Your task to perform on an android device: Add "razer deathadder" to the cart on amazon Image 0: 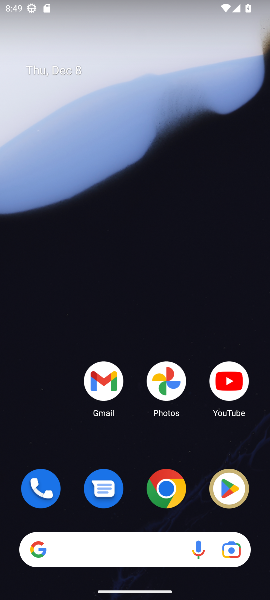
Step 0: drag from (92, 538) to (128, 197)
Your task to perform on an android device: Add "razer deathadder" to the cart on amazon Image 1: 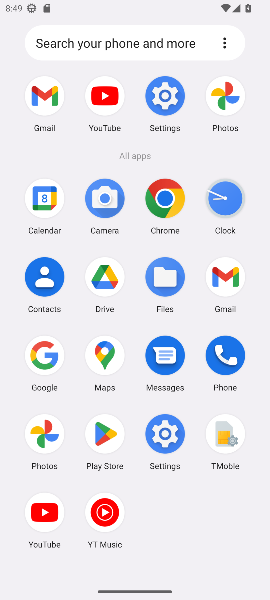
Step 1: click (44, 363)
Your task to perform on an android device: Add "razer deathadder" to the cart on amazon Image 2: 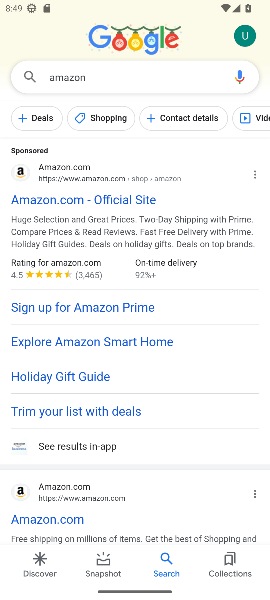
Step 2: click (76, 199)
Your task to perform on an android device: Add "razer deathadder" to the cart on amazon Image 3: 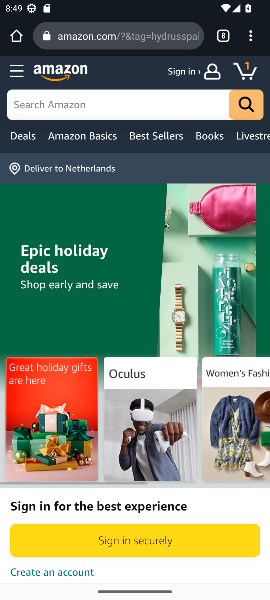
Step 3: click (39, 104)
Your task to perform on an android device: Add "razer deathadder" to the cart on amazon Image 4: 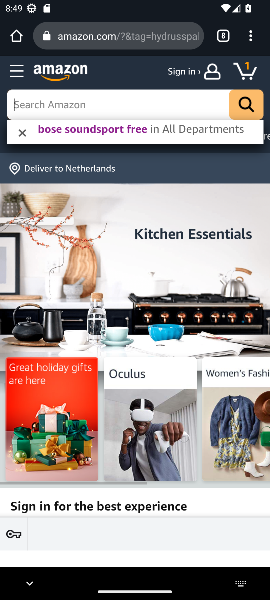
Step 4: type "razer deathadder"
Your task to perform on an android device: Add "razer deathadder" to the cart on amazon Image 5: 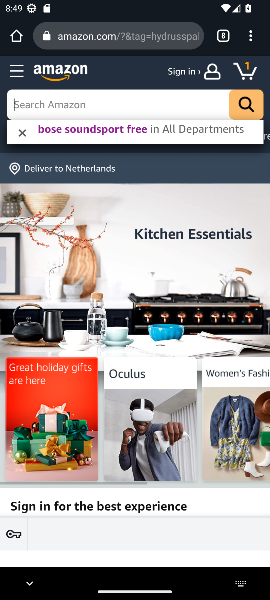
Step 5: click (243, 107)
Your task to perform on an android device: Add "razer deathadder" to the cart on amazon Image 6: 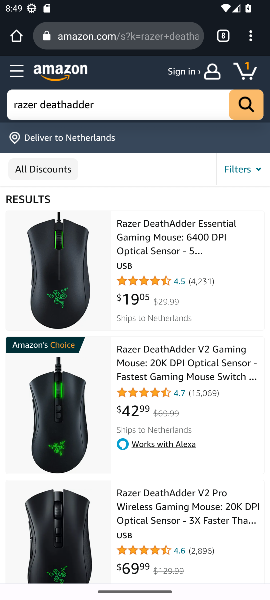
Step 6: click (125, 248)
Your task to perform on an android device: Add "razer deathadder" to the cart on amazon Image 7: 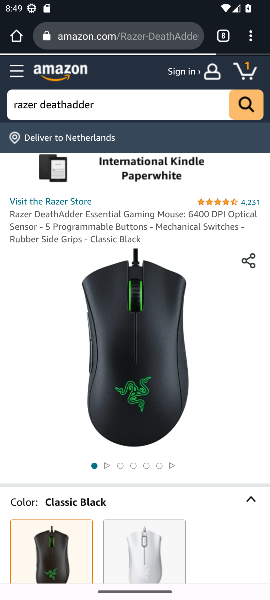
Step 7: drag from (211, 475) to (211, 241)
Your task to perform on an android device: Add "razer deathadder" to the cart on amazon Image 8: 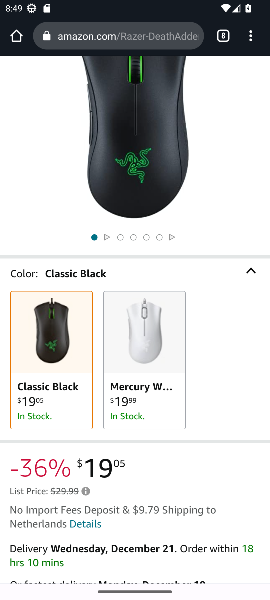
Step 8: drag from (235, 568) to (235, 323)
Your task to perform on an android device: Add "razer deathadder" to the cart on amazon Image 9: 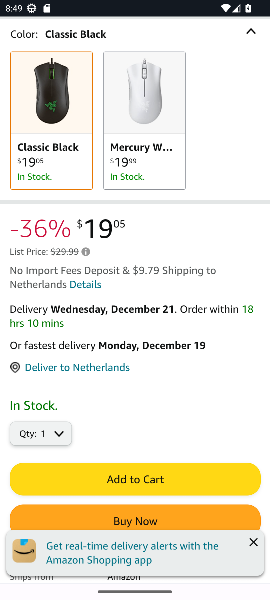
Step 9: click (148, 482)
Your task to perform on an android device: Add "razer deathadder" to the cart on amazon Image 10: 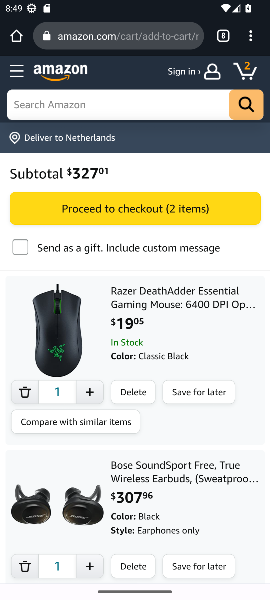
Step 10: task complete